Your task to perform on an android device: show emergency info Image 0: 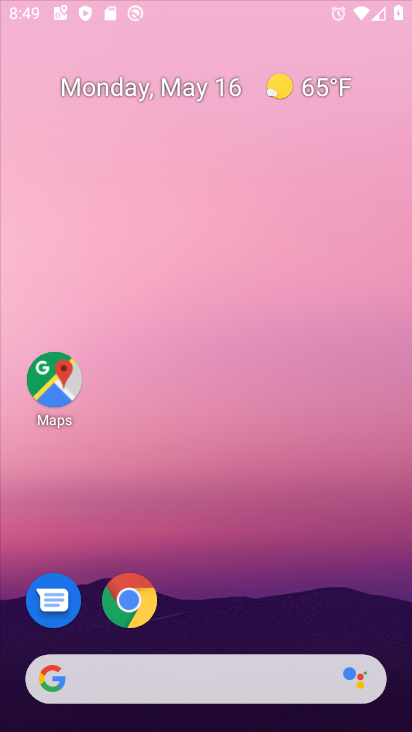
Step 0: click (282, 125)
Your task to perform on an android device: show emergency info Image 1: 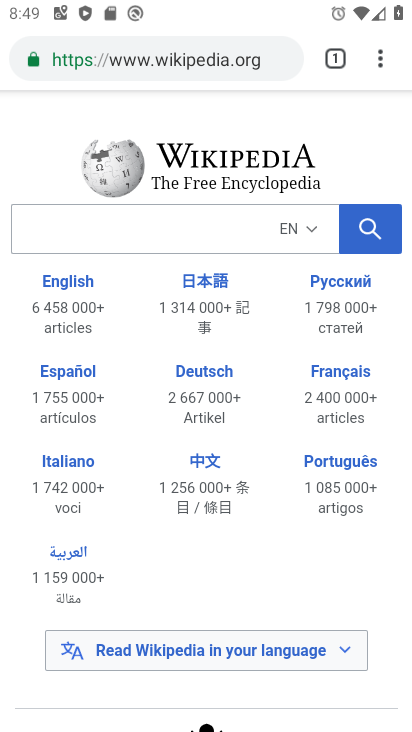
Step 1: press home button
Your task to perform on an android device: show emergency info Image 2: 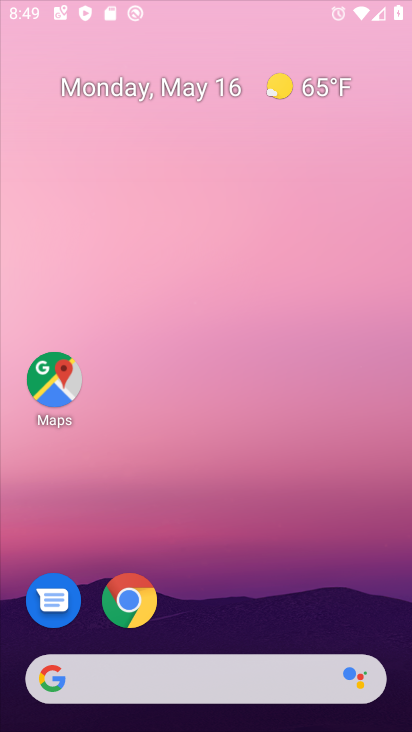
Step 2: drag from (217, 632) to (201, 3)
Your task to perform on an android device: show emergency info Image 3: 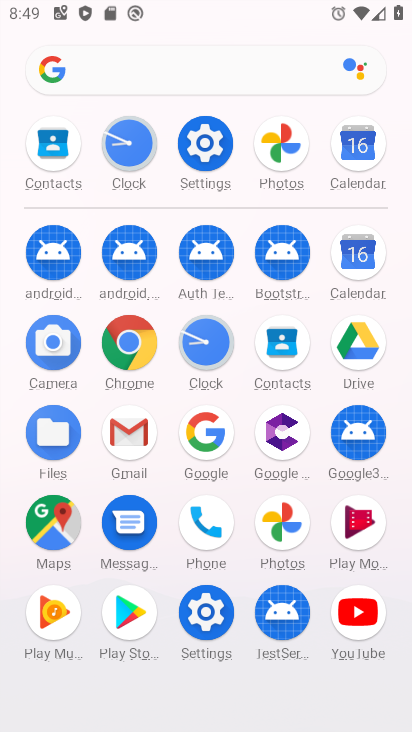
Step 3: click (220, 135)
Your task to perform on an android device: show emergency info Image 4: 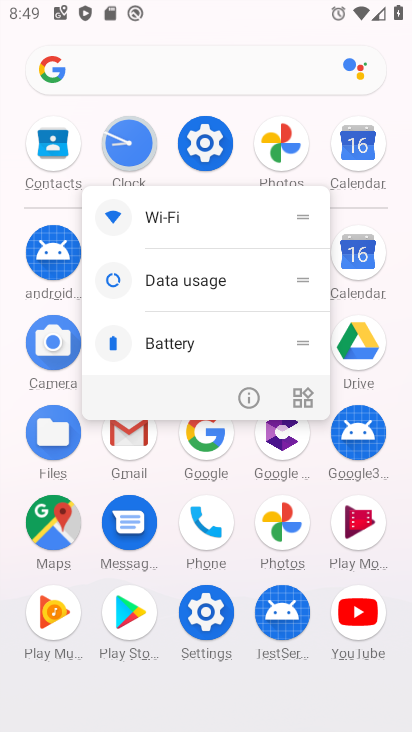
Step 4: click (248, 386)
Your task to perform on an android device: show emergency info Image 5: 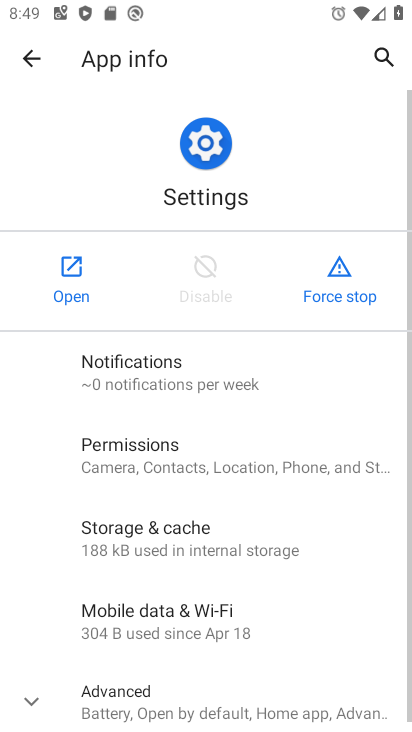
Step 5: click (82, 257)
Your task to perform on an android device: show emergency info Image 6: 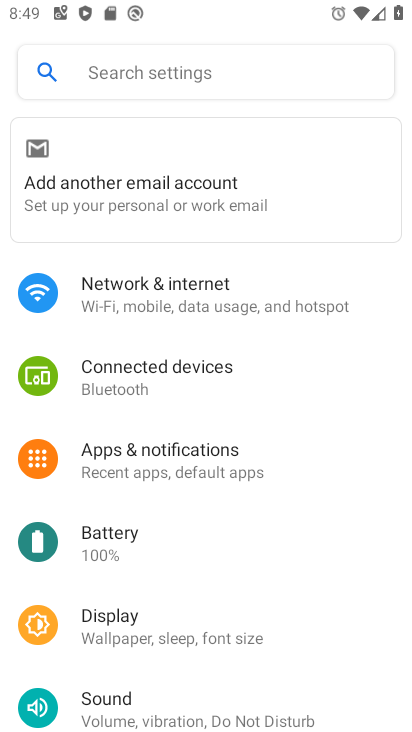
Step 6: drag from (182, 658) to (297, 0)
Your task to perform on an android device: show emergency info Image 7: 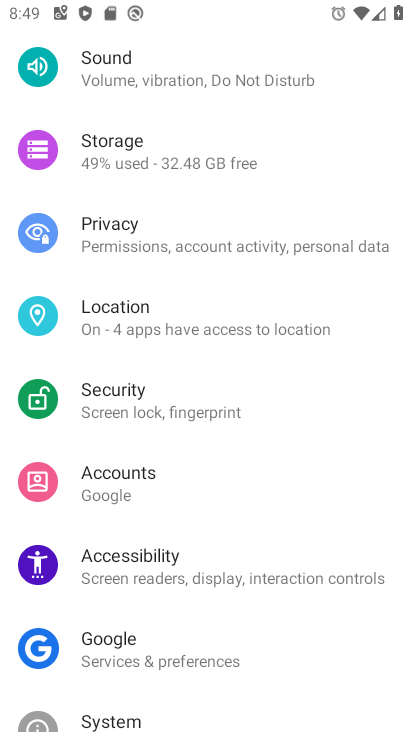
Step 7: drag from (190, 658) to (292, 38)
Your task to perform on an android device: show emergency info Image 8: 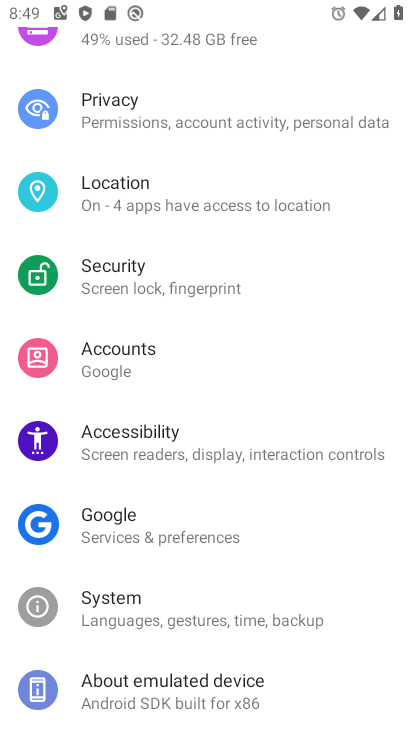
Step 8: click (178, 677)
Your task to perform on an android device: show emergency info Image 9: 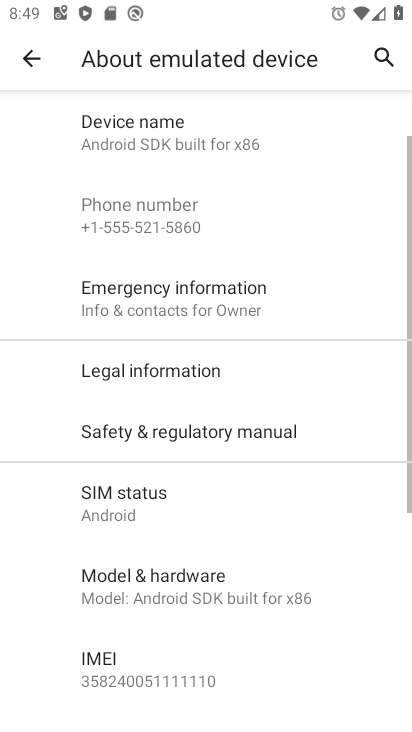
Step 9: drag from (177, 675) to (246, 127)
Your task to perform on an android device: show emergency info Image 10: 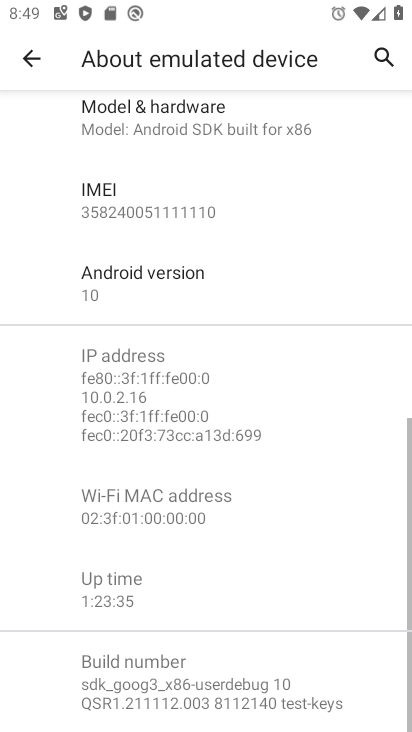
Step 10: drag from (226, 149) to (226, 637)
Your task to perform on an android device: show emergency info Image 11: 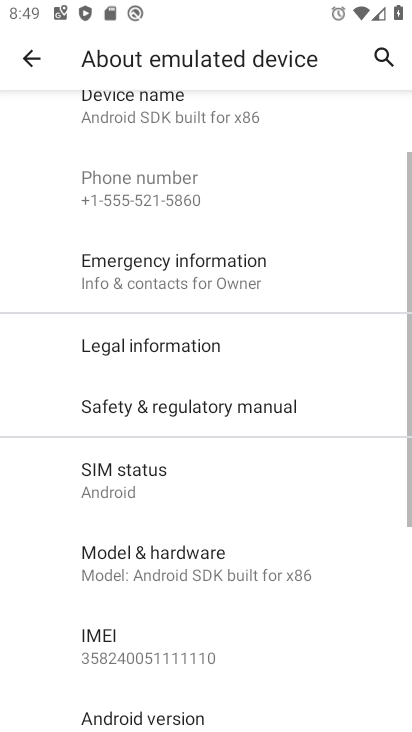
Step 11: click (219, 252)
Your task to perform on an android device: show emergency info Image 12: 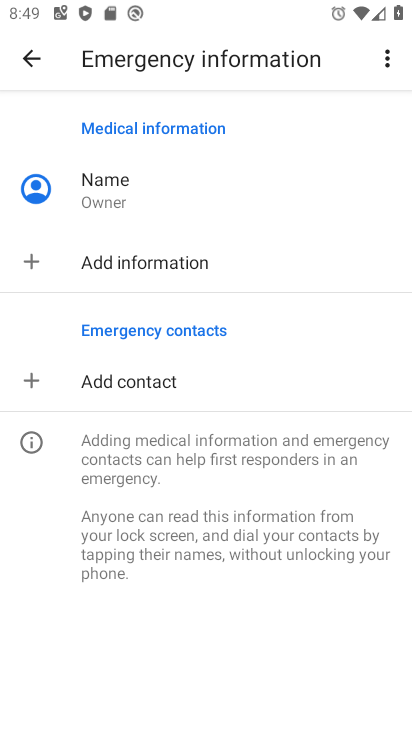
Step 12: task complete